Your task to perform on an android device: turn pop-ups on in chrome Image 0: 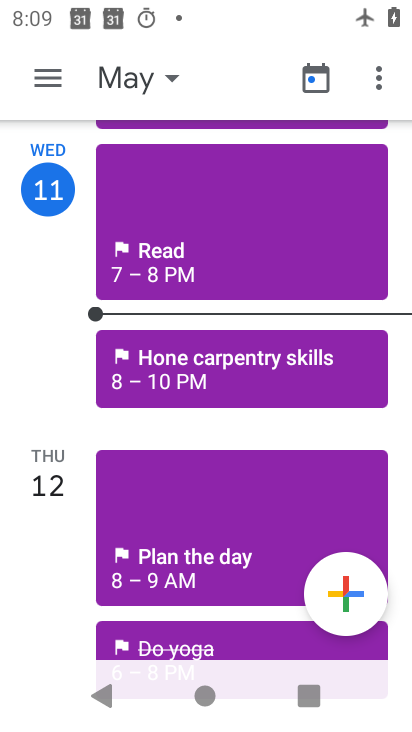
Step 0: press home button
Your task to perform on an android device: turn pop-ups on in chrome Image 1: 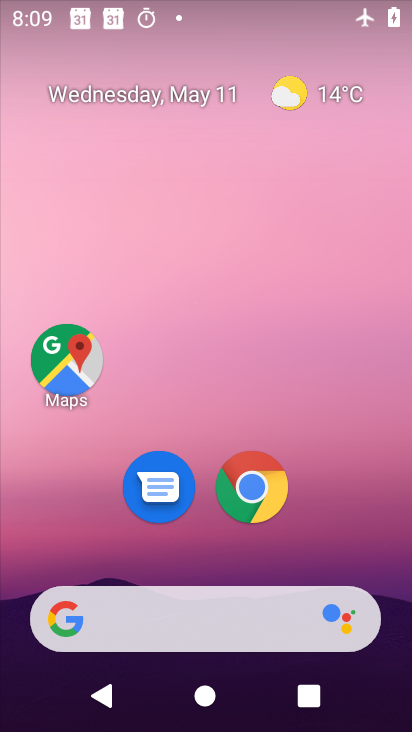
Step 1: click (248, 489)
Your task to perform on an android device: turn pop-ups on in chrome Image 2: 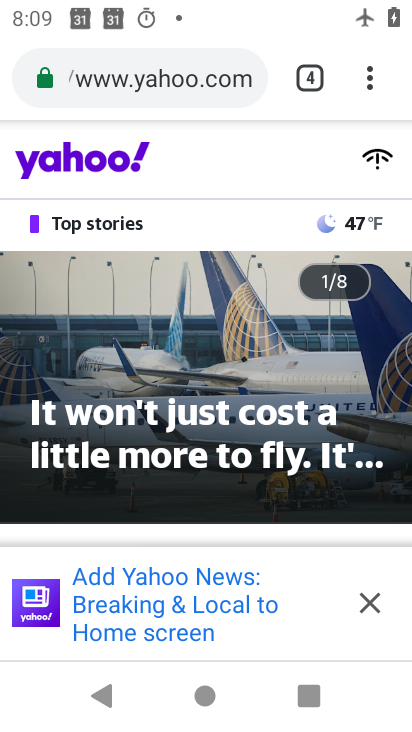
Step 2: click (370, 84)
Your task to perform on an android device: turn pop-ups on in chrome Image 3: 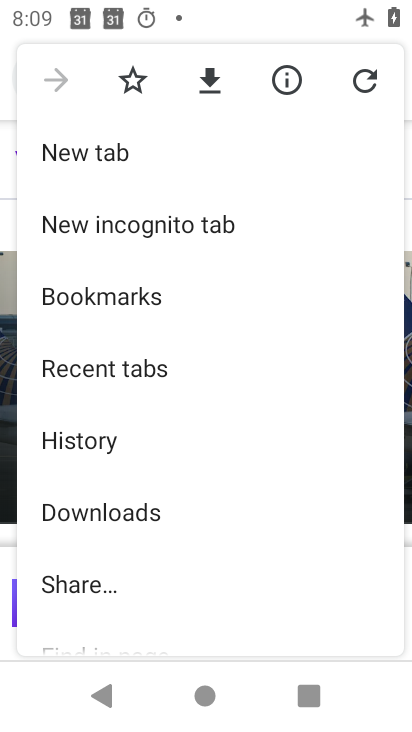
Step 3: drag from (186, 589) to (189, 230)
Your task to perform on an android device: turn pop-ups on in chrome Image 4: 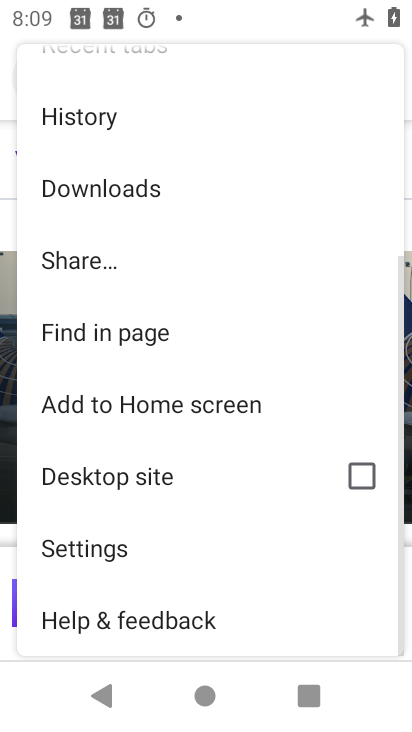
Step 4: click (89, 549)
Your task to perform on an android device: turn pop-ups on in chrome Image 5: 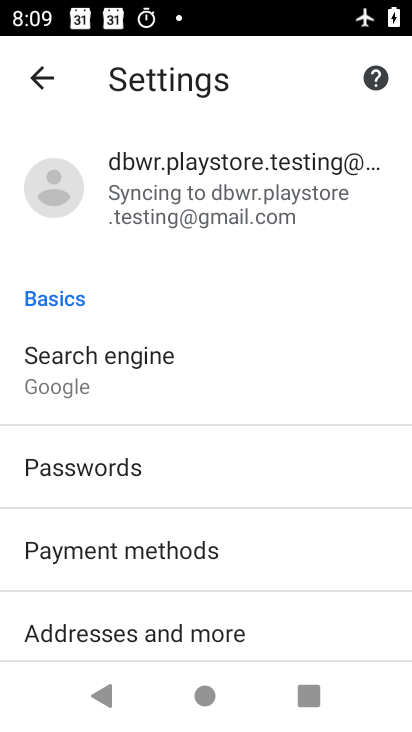
Step 5: drag from (204, 611) to (226, 288)
Your task to perform on an android device: turn pop-ups on in chrome Image 6: 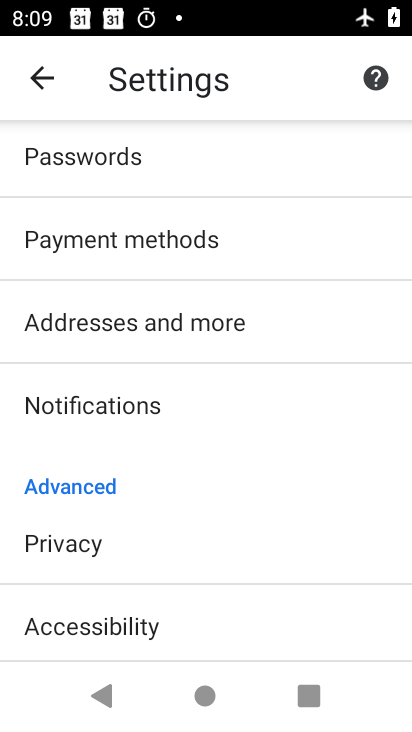
Step 6: drag from (219, 626) to (261, 267)
Your task to perform on an android device: turn pop-ups on in chrome Image 7: 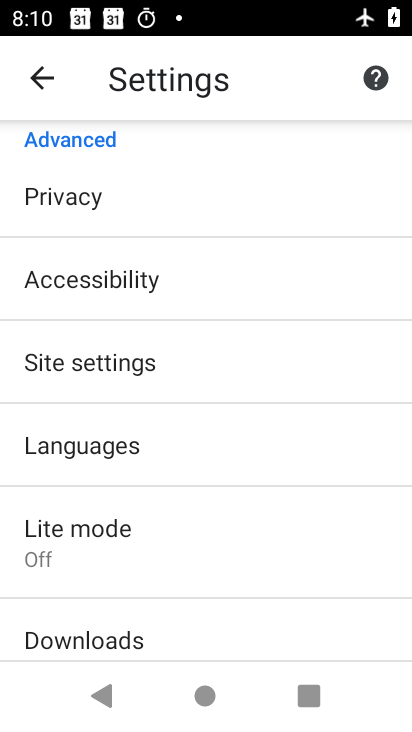
Step 7: click (87, 360)
Your task to perform on an android device: turn pop-ups on in chrome Image 8: 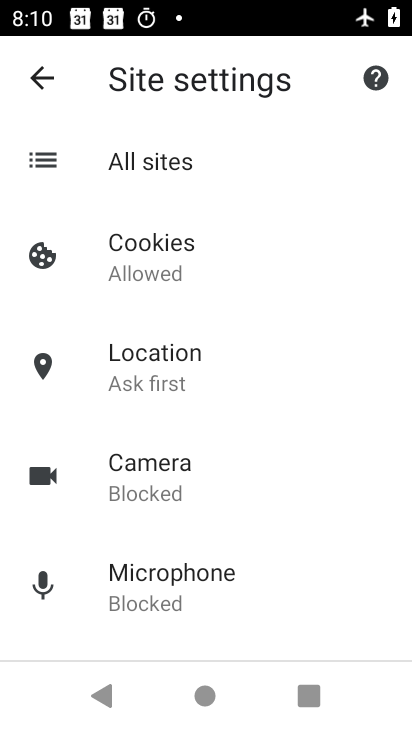
Step 8: drag from (197, 623) to (230, 223)
Your task to perform on an android device: turn pop-ups on in chrome Image 9: 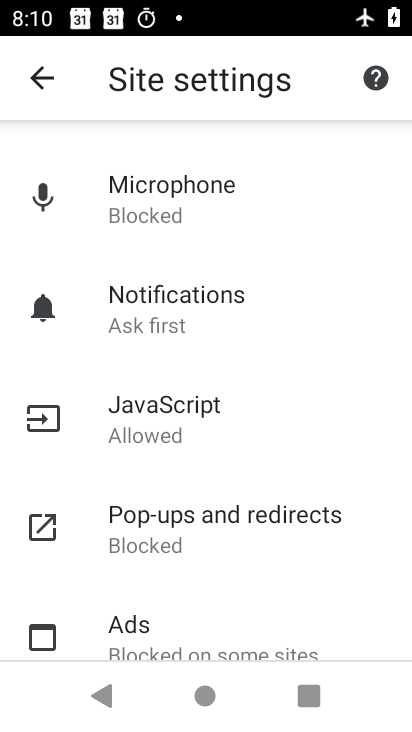
Step 9: click (217, 516)
Your task to perform on an android device: turn pop-ups on in chrome Image 10: 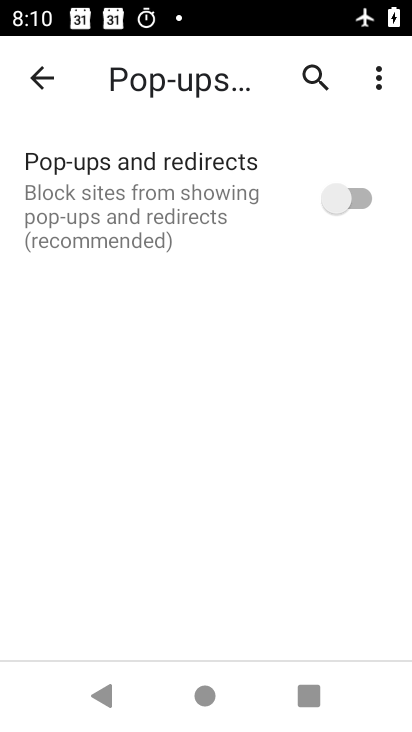
Step 10: click (364, 200)
Your task to perform on an android device: turn pop-ups on in chrome Image 11: 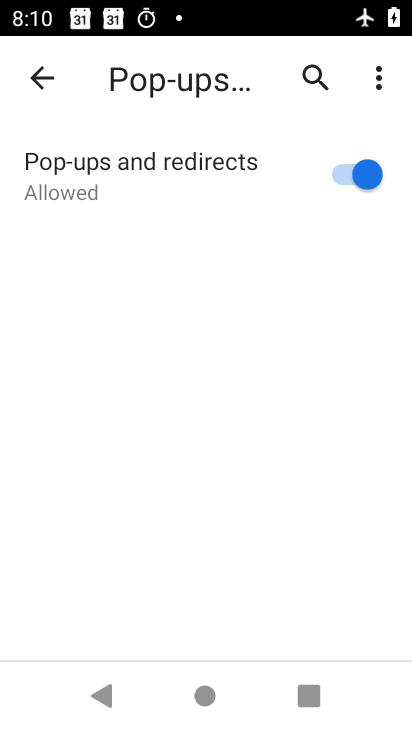
Step 11: task complete